Your task to perform on an android device: open device folders in google photos Image 0: 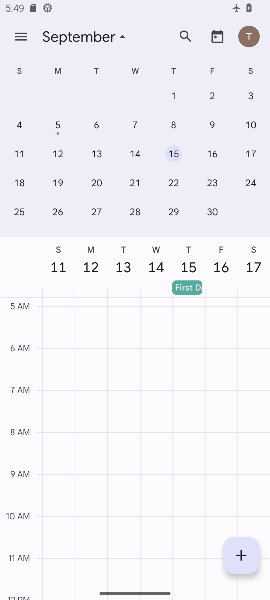
Step 0: press home button
Your task to perform on an android device: open device folders in google photos Image 1: 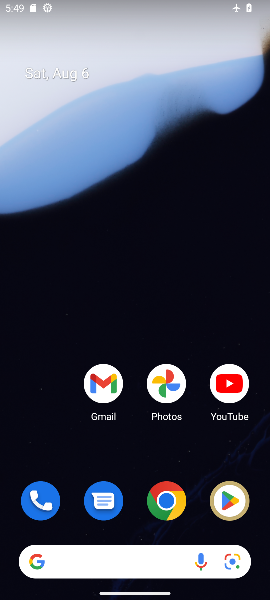
Step 1: drag from (67, 447) to (78, 58)
Your task to perform on an android device: open device folders in google photos Image 2: 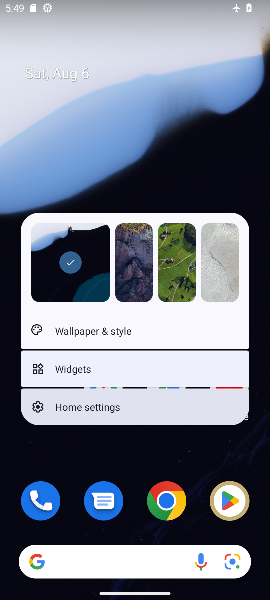
Step 2: press home button
Your task to perform on an android device: open device folders in google photos Image 3: 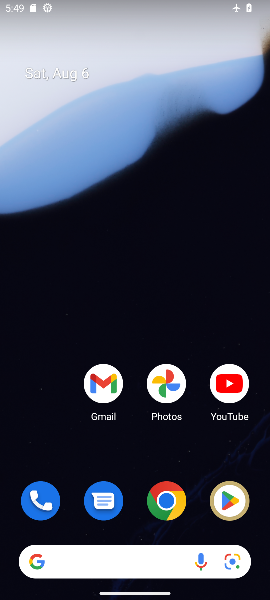
Step 3: click (164, 396)
Your task to perform on an android device: open device folders in google photos Image 4: 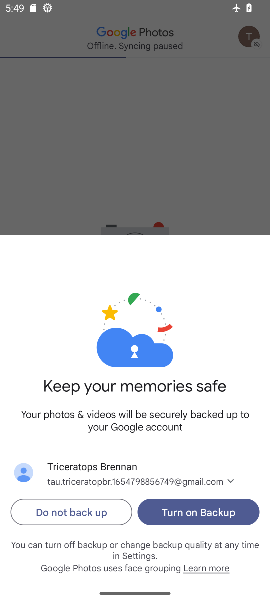
Step 4: click (195, 510)
Your task to perform on an android device: open device folders in google photos Image 5: 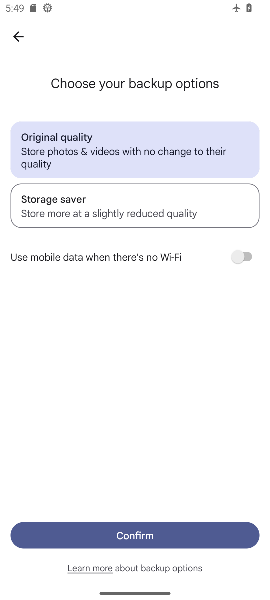
Step 5: click (195, 511)
Your task to perform on an android device: open device folders in google photos Image 6: 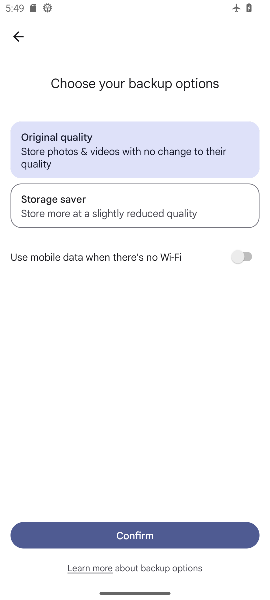
Step 6: click (170, 524)
Your task to perform on an android device: open device folders in google photos Image 7: 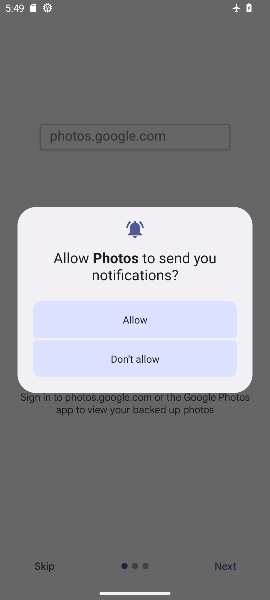
Step 7: click (161, 324)
Your task to perform on an android device: open device folders in google photos Image 8: 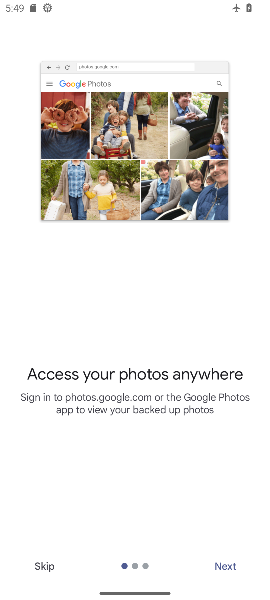
Step 8: click (40, 568)
Your task to perform on an android device: open device folders in google photos Image 9: 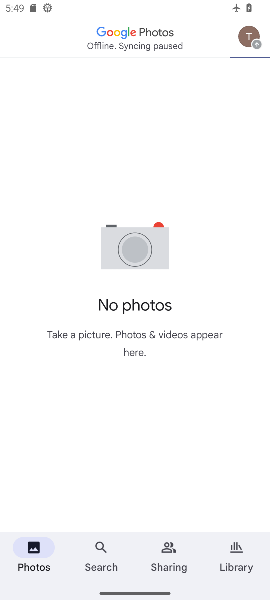
Step 9: click (244, 31)
Your task to perform on an android device: open device folders in google photos Image 10: 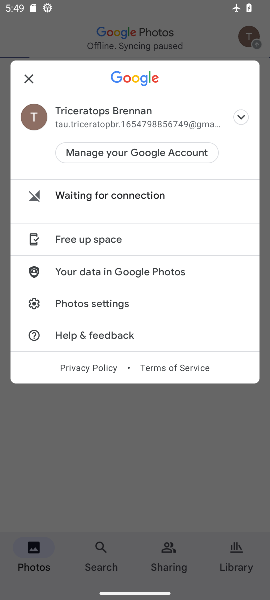
Step 10: click (212, 472)
Your task to perform on an android device: open device folders in google photos Image 11: 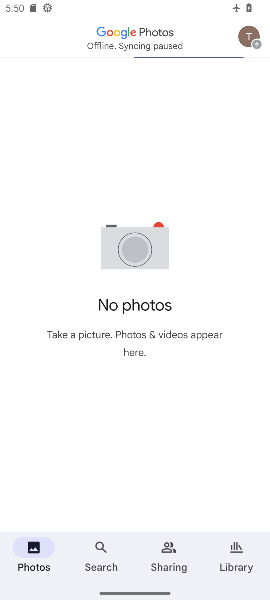
Step 11: click (236, 548)
Your task to perform on an android device: open device folders in google photos Image 12: 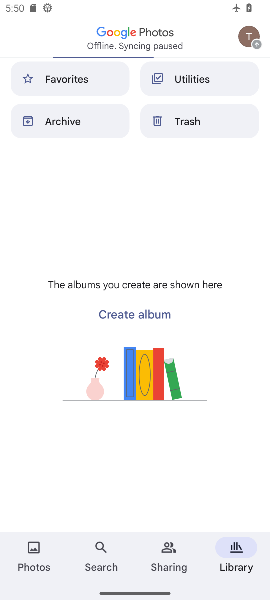
Step 12: task complete